Your task to perform on an android device: Check the news Image 0: 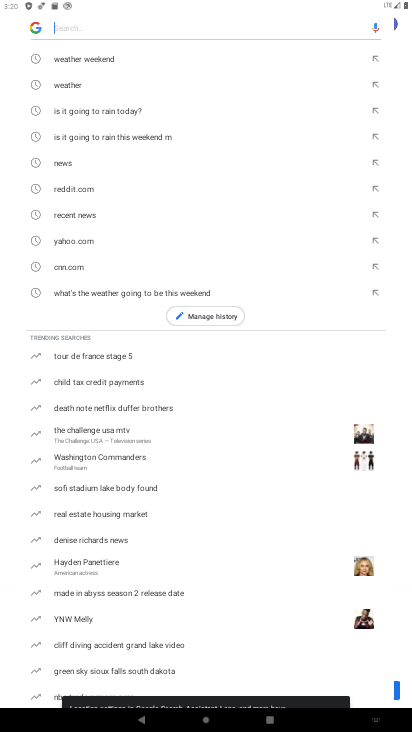
Step 0: press home button
Your task to perform on an android device: Check the news Image 1: 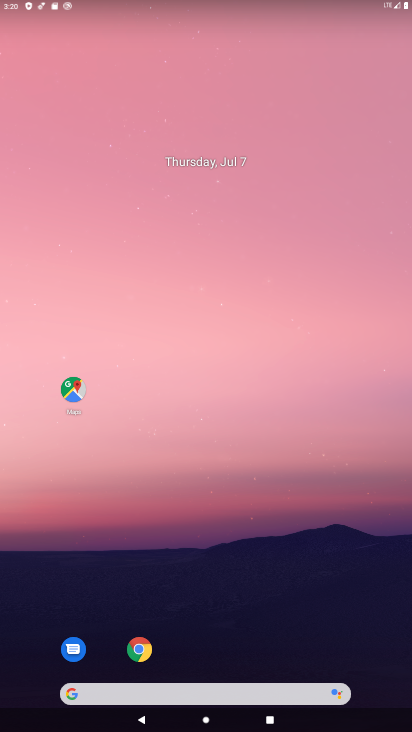
Step 1: drag from (196, 630) to (241, 308)
Your task to perform on an android device: Check the news Image 2: 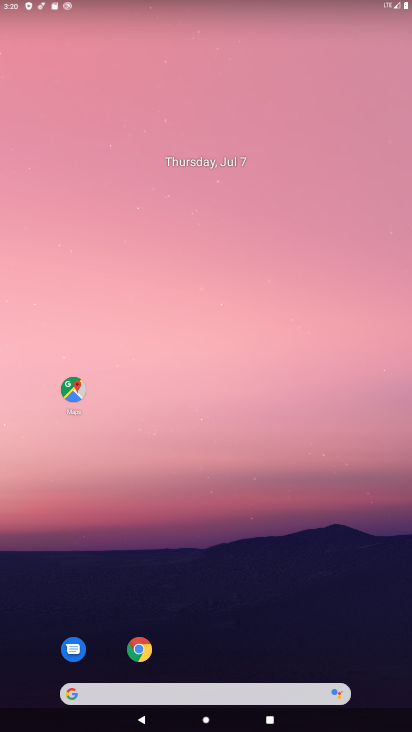
Step 2: drag from (212, 620) to (265, 105)
Your task to perform on an android device: Check the news Image 3: 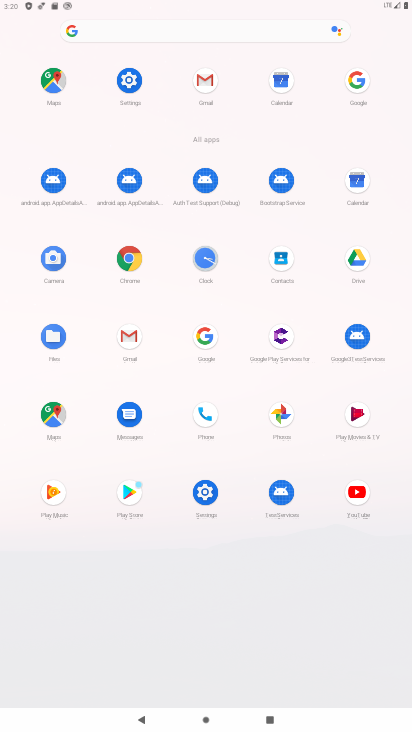
Step 3: click (204, 345)
Your task to perform on an android device: Check the news Image 4: 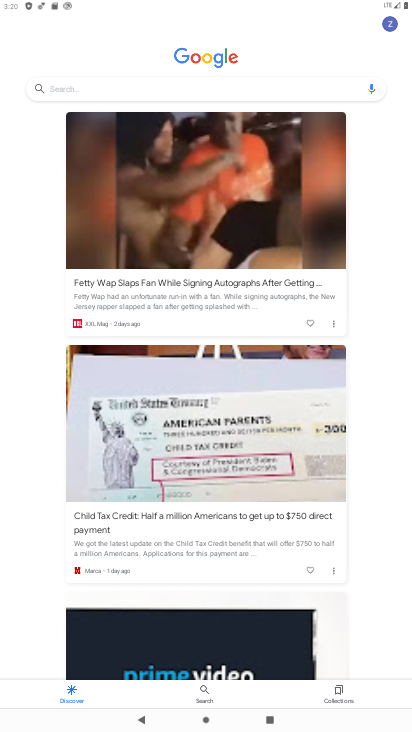
Step 4: click (236, 87)
Your task to perform on an android device: Check the news Image 5: 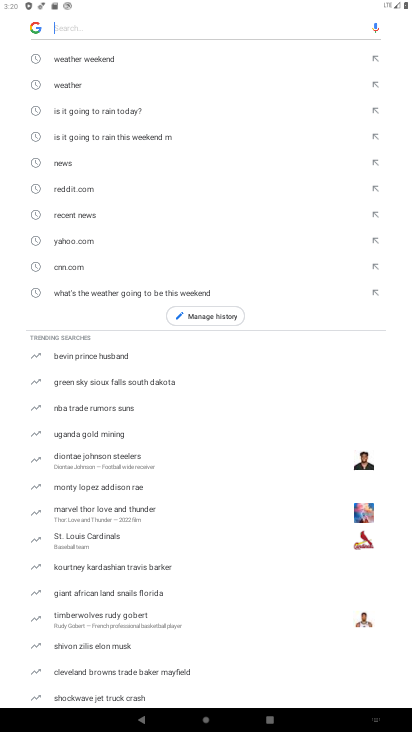
Step 5: type "news"
Your task to perform on an android device: Check the news Image 6: 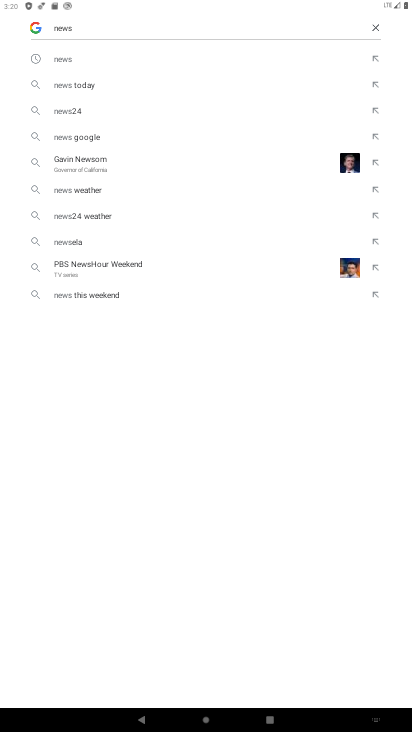
Step 6: click (331, 54)
Your task to perform on an android device: Check the news Image 7: 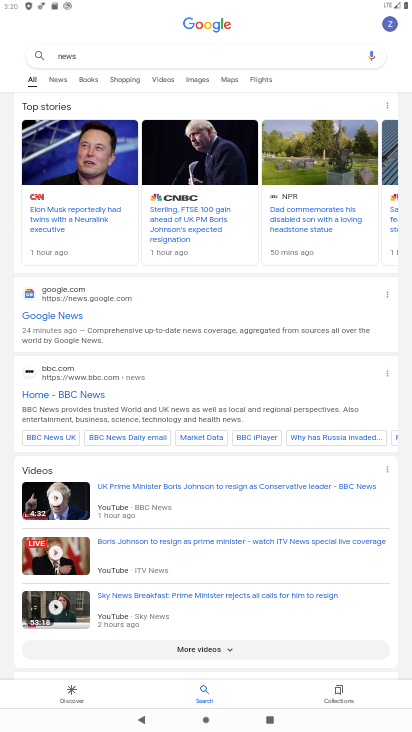
Step 7: task complete